Your task to perform on an android device: change the clock display to analog Image 0: 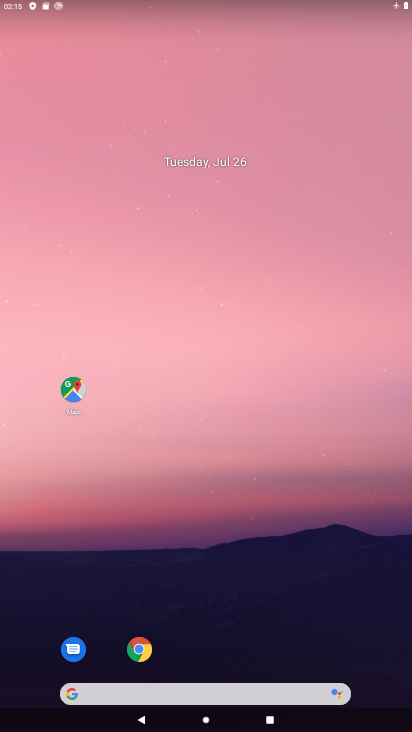
Step 0: drag from (186, 697) to (211, 53)
Your task to perform on an android device: change the clock display to analog Image 1: 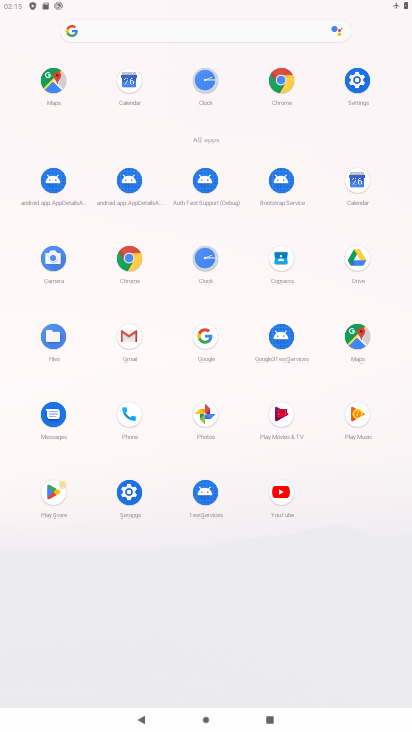
Step 1: click (206, 85)
Your task to perform on an android device: change the clock display to analog Image 2: 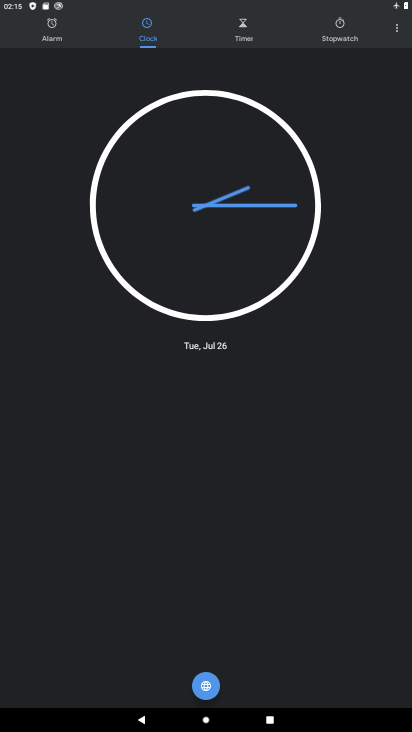
Step 2: click (399, 28)
Your task to perform on an android device: change the clock display to analog Image 3: 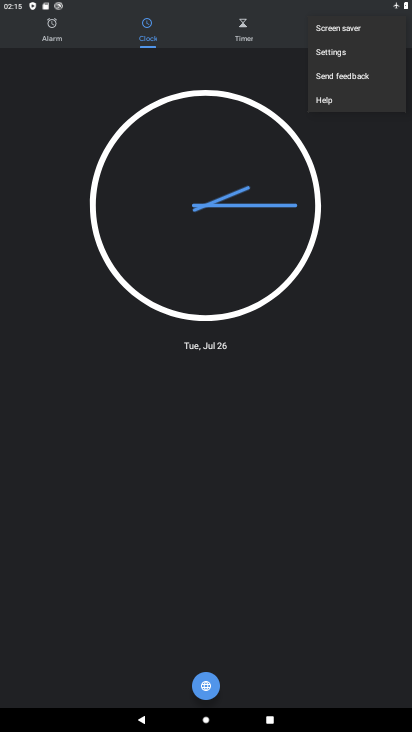
Step 3: click (340, 54)
Your task to perform on an android device: change the clock display to analog Image 4: 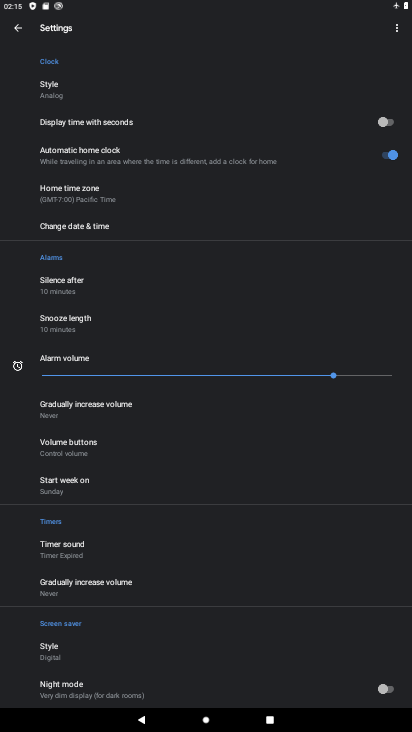
Step 4: click (53, 94)
Your task to perform on an android device: change the clock display to analog Image 5: 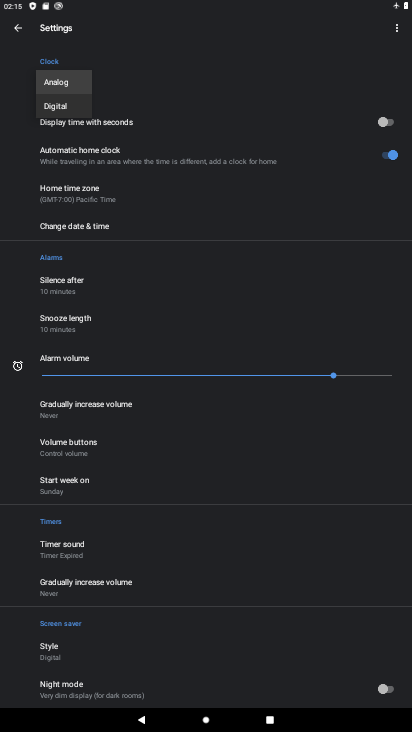
Step 5: click (64, 86)
Your task to perform on an android device: change the clock display to analog Image 6: 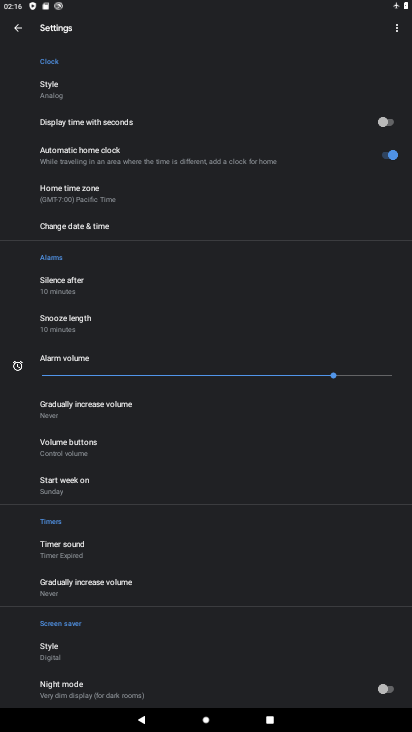
Step 6: task complete